Your task to perform on an android device: change notification settings in the gmail app Image 0: 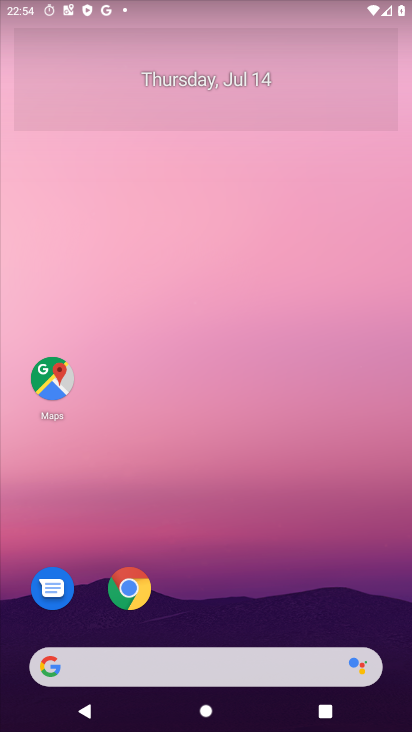
Step 0: drag from (153, 623) to (194, 38)
Your task to perform on an android device: change notification settings in the gmail app Image 1: 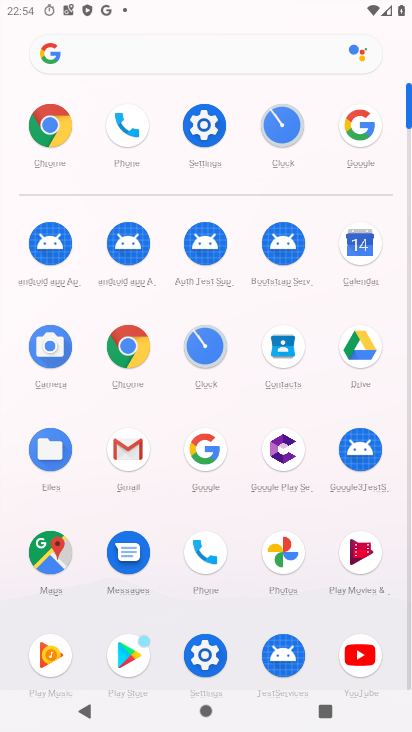
Step 1: click (128, 436)
Your task to perform on an android device: change notification settings in the gmail app Image 2: 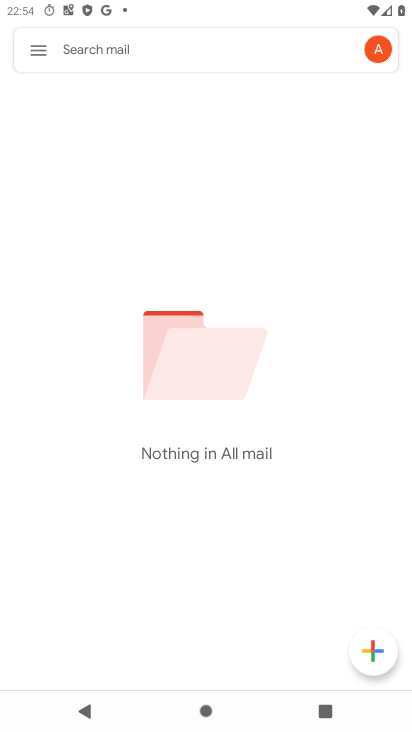
Step 2: click (37, 48)
Your task to perform on an android device: change notification settings in the gmail app Image 3: 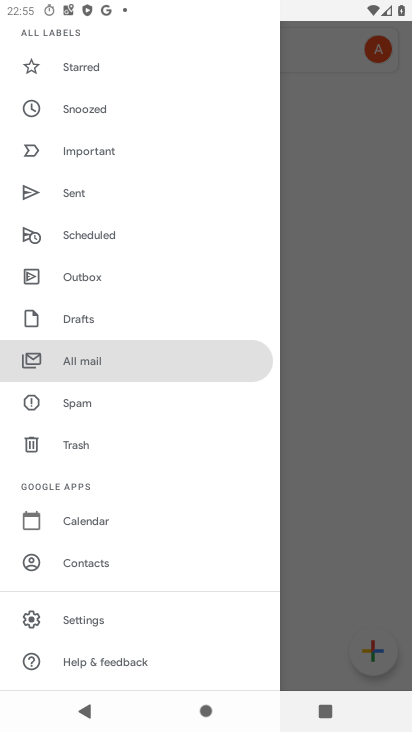
Step 3: click (89, 609)
Your task to perform on an android device: change notification settings in the gmail app Image 4: 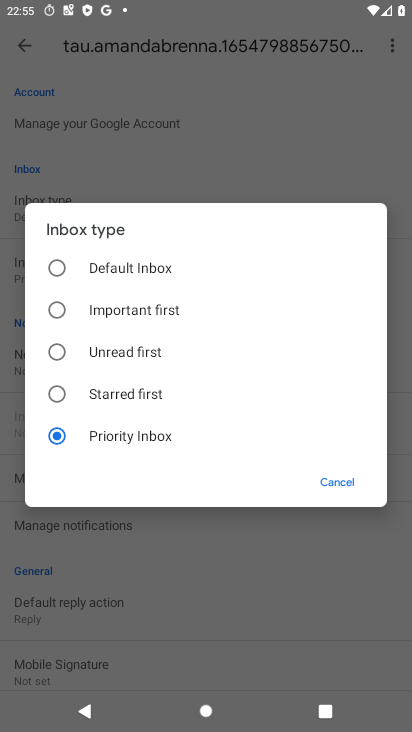
Step 4: click (340, 486)
Your task to perform on an android device: change notification settings in the gmail app Image 5: 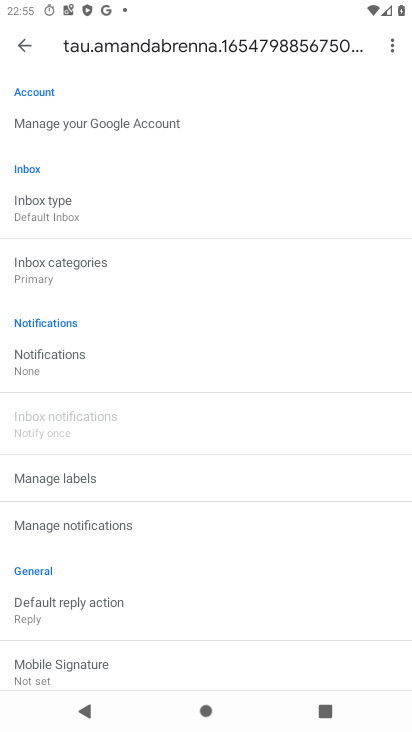
Step 5: click (55, 367)
Your task to perform on an android device: change notification settings in the gmail app Image 6: 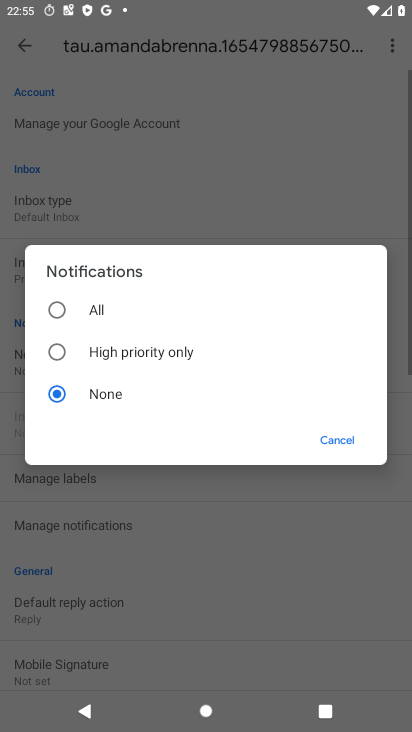
Step 6: click (61, 304)
Your task to perform on an android device: change notification settings in the gmail app Image 7: 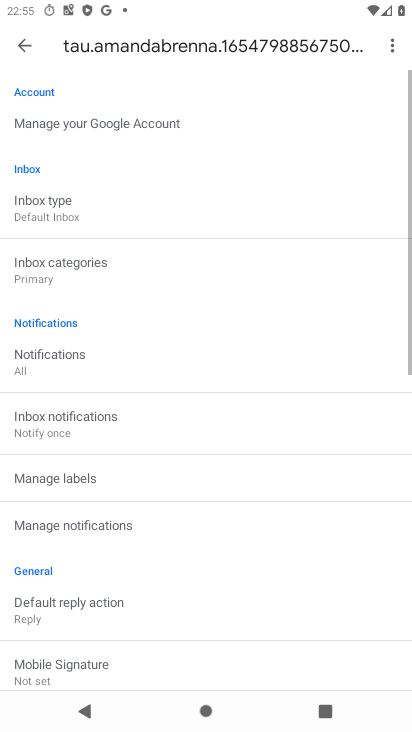
Step 7: task complete